Your task to perform on an android device: check data usage Image 0: 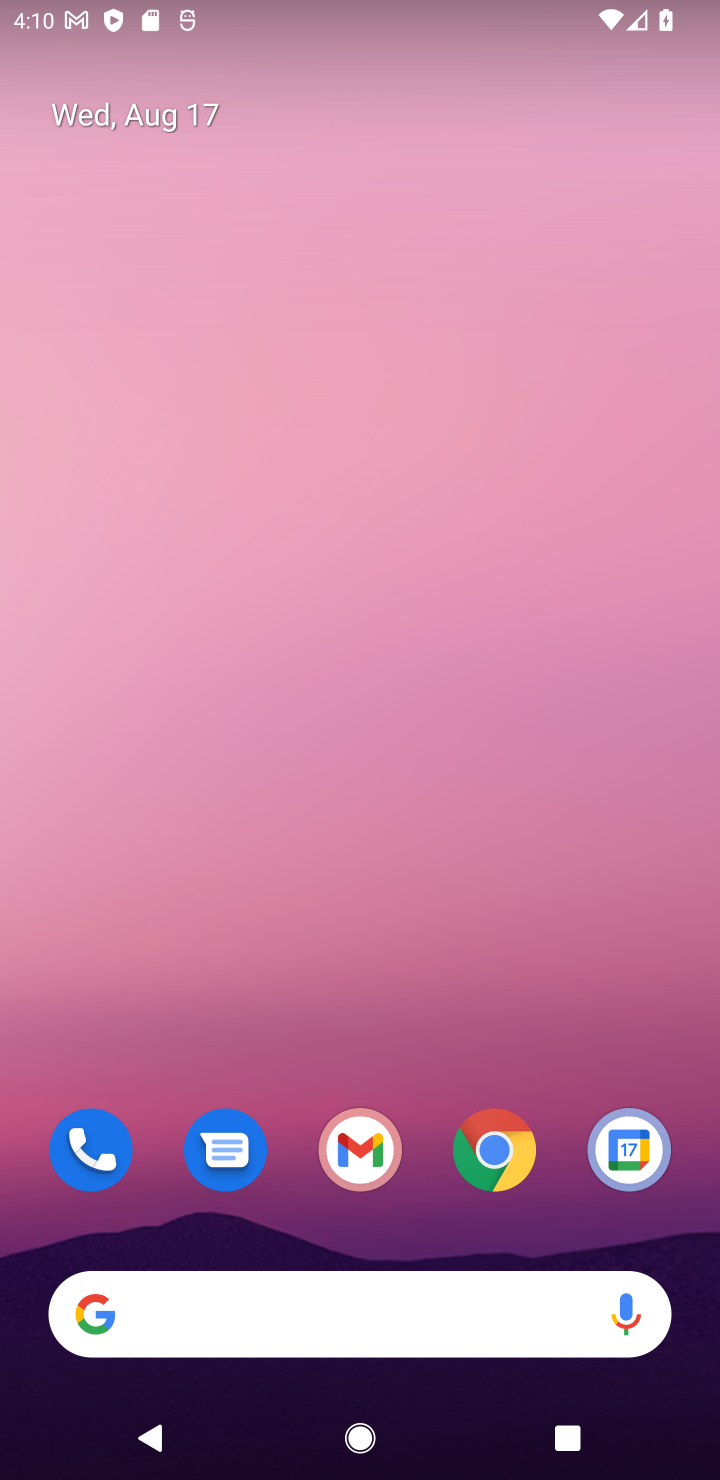
Step 0: drag from (589, 1215) to (36, 276)
Your task to perform on an android device: check data usage Image 1: 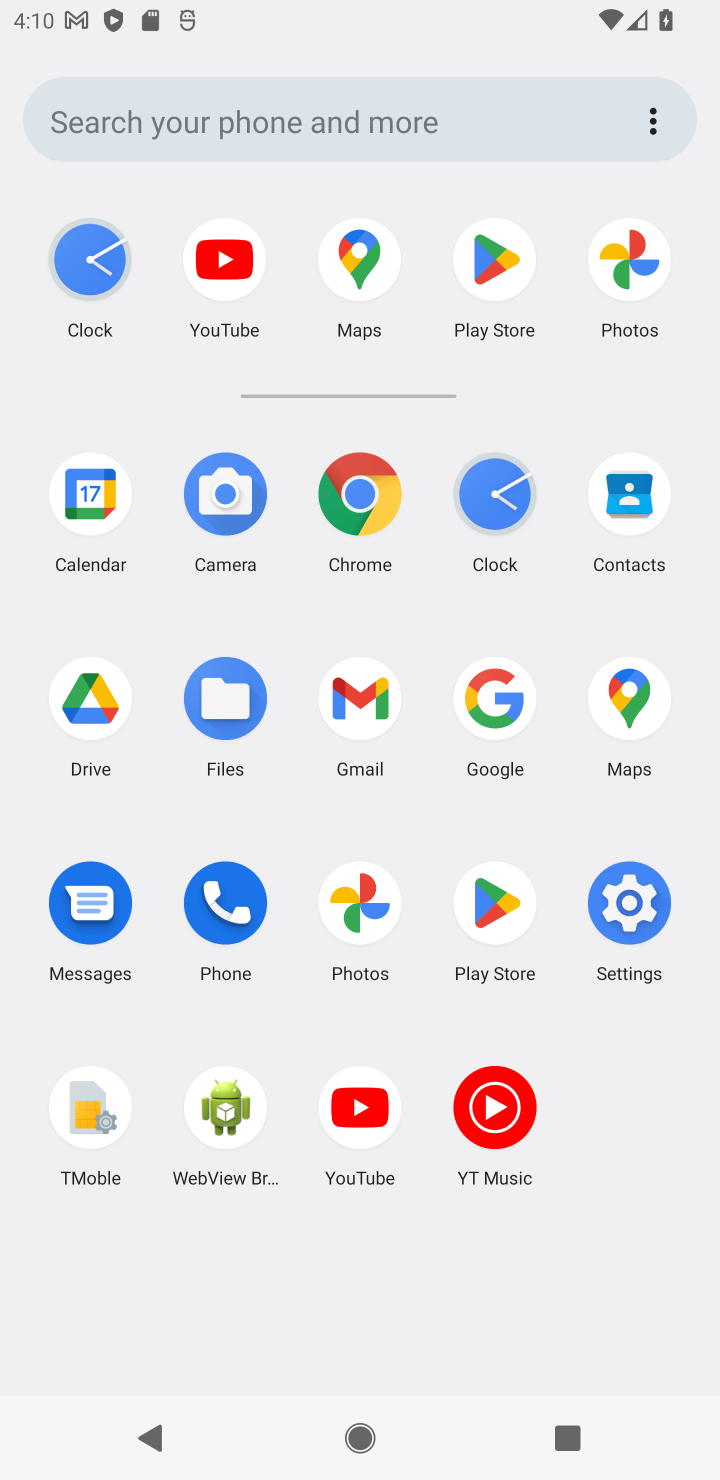
Step 1: click (628, 905)
Your task to perform on an android device: check data usage Image 2: 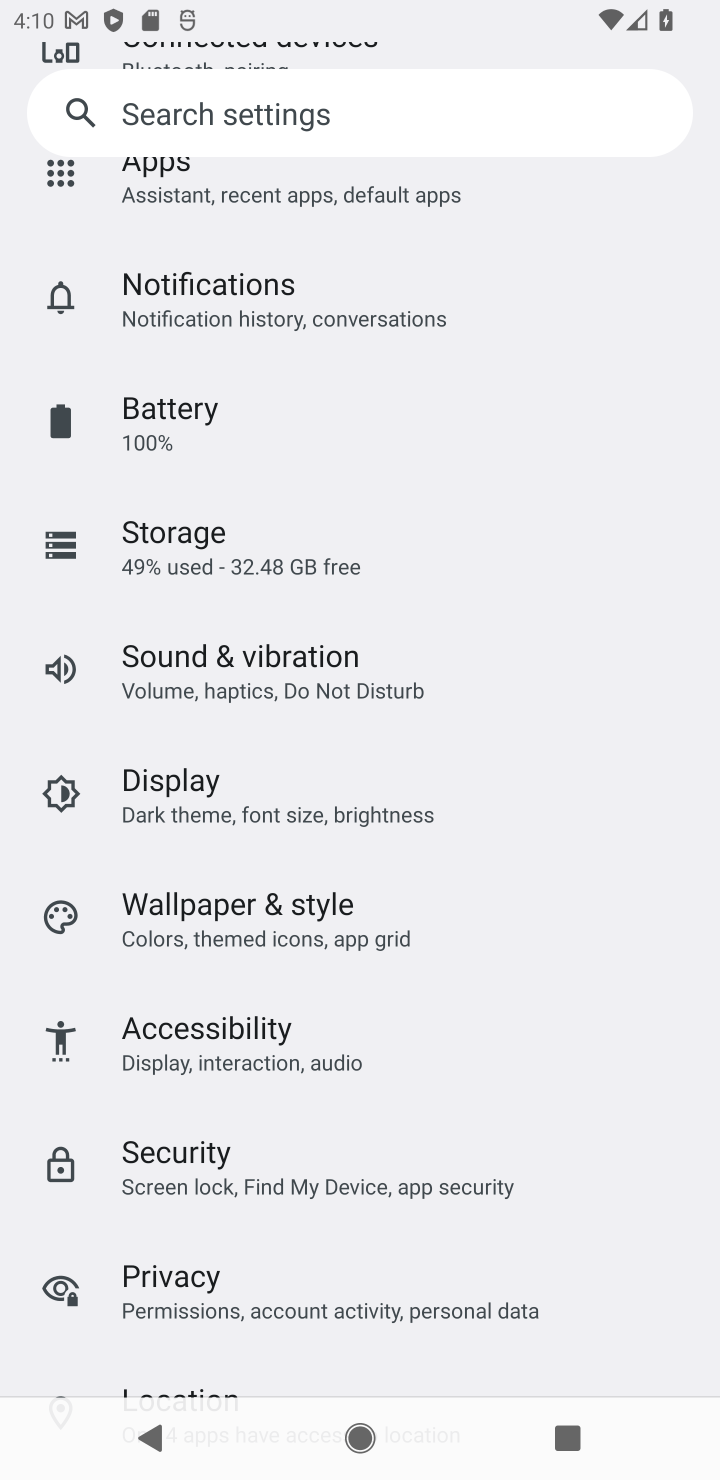
Step 2: drag from (163, 324) to (232, 1185)
Your task to perform on an android device: check data usage Image 3: 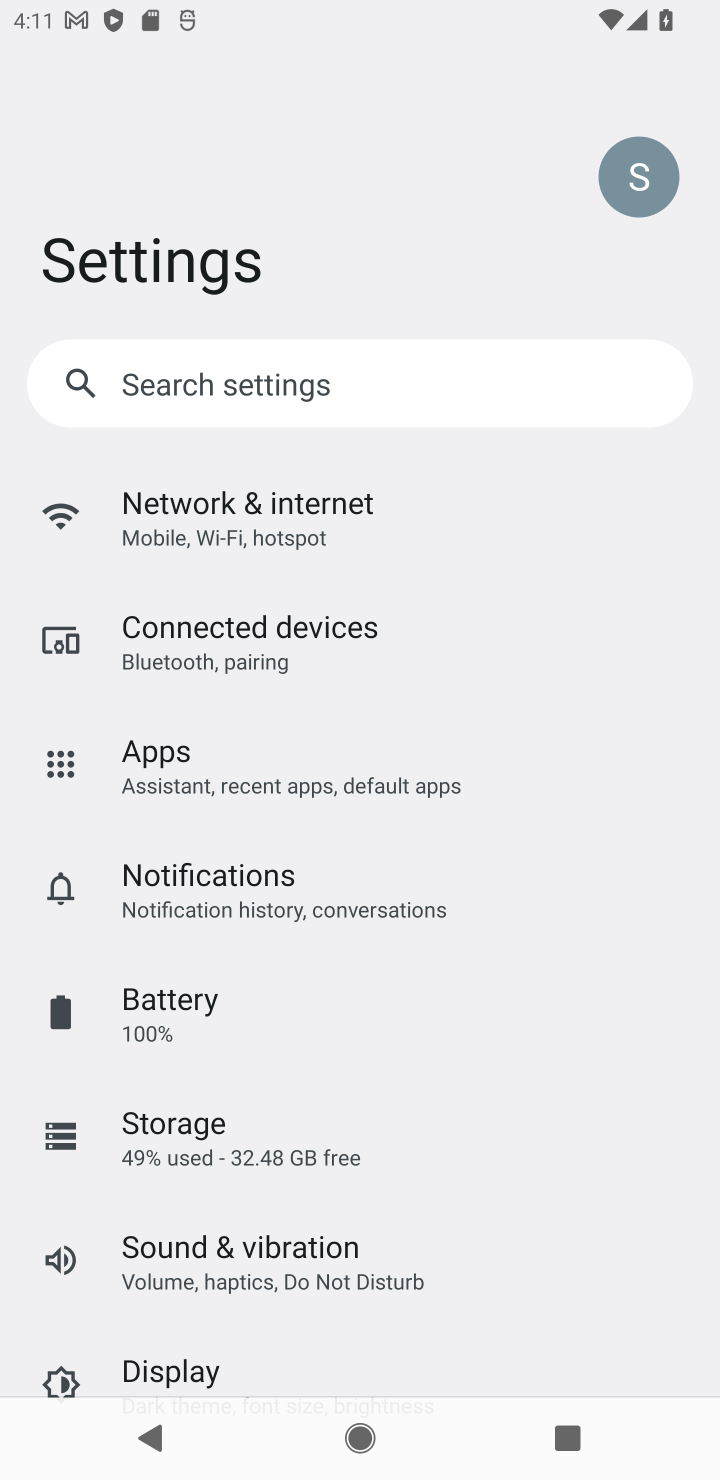
Step 3: click (235, 801)
Your task to perform on an android device: check data usage Image 4: 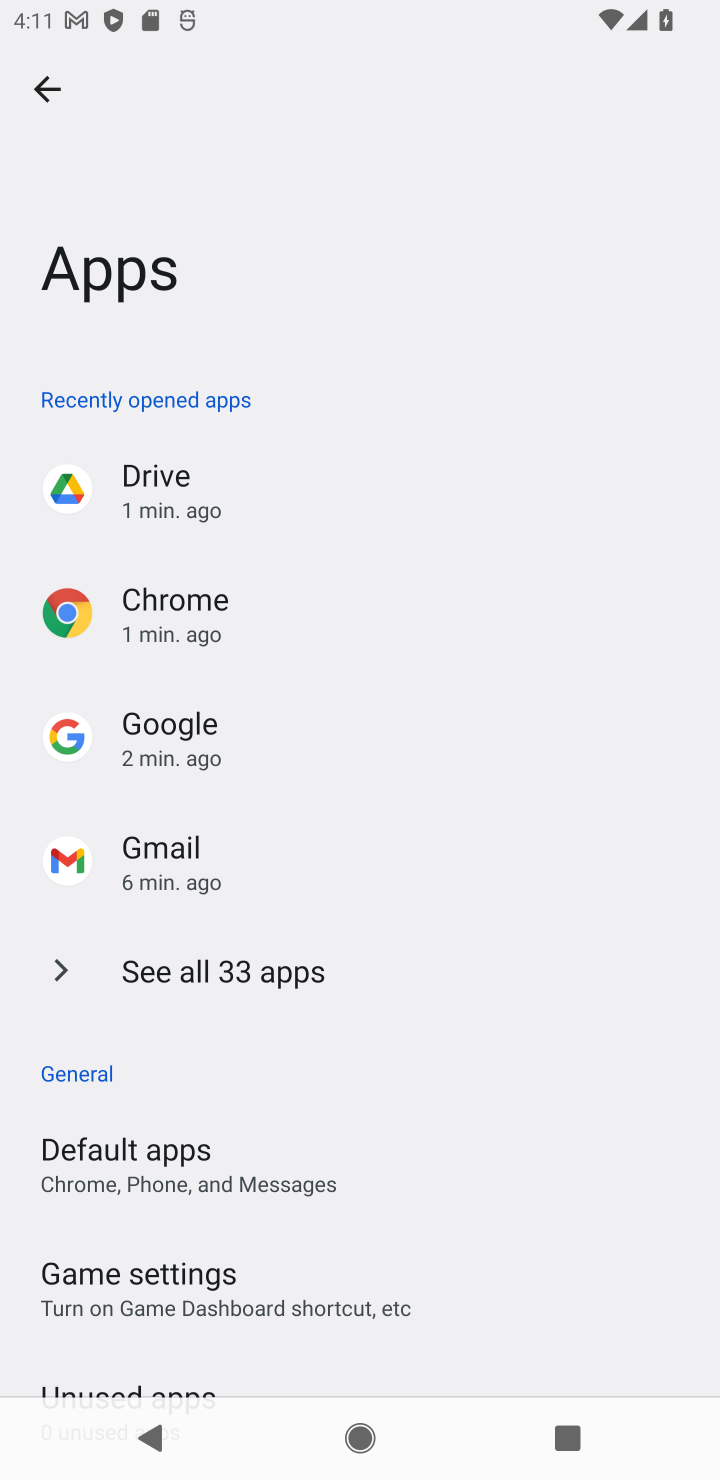
Step 4: task complete